Your task to perform on an android device: empty trash in google photos Image 0: 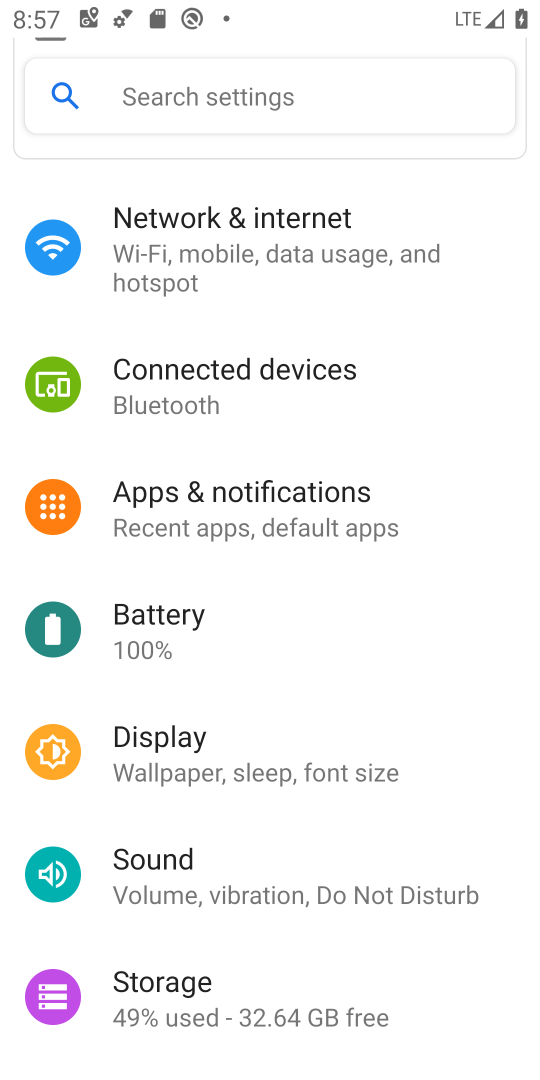
Step 0: press home button
Your task to perform on an android device: empty trash in google photos Image 1: 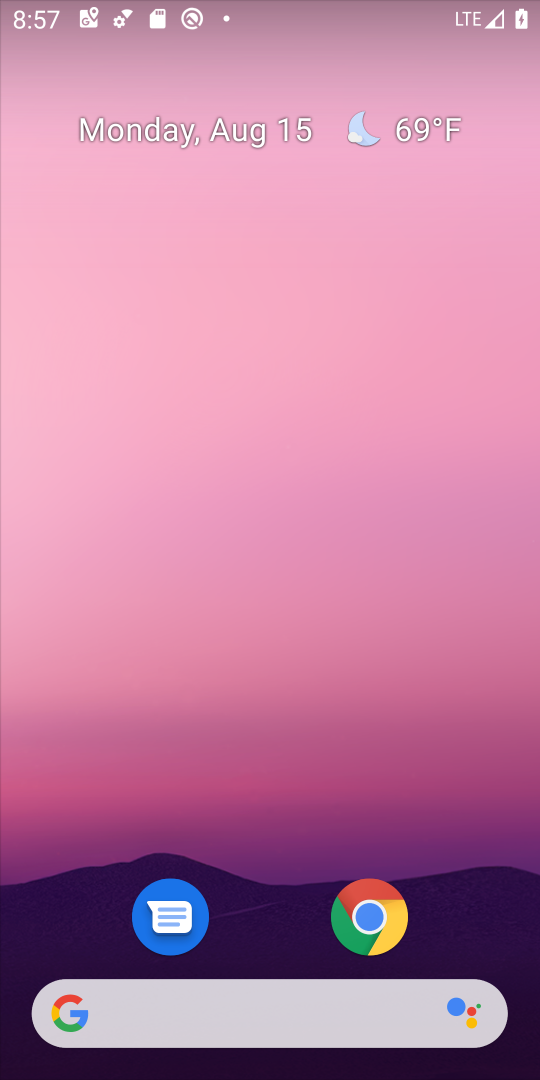
Step 1: drag from (265, 831) to (307, 17)
Your task to perform on an android device: empty trash in google photos Image 2: 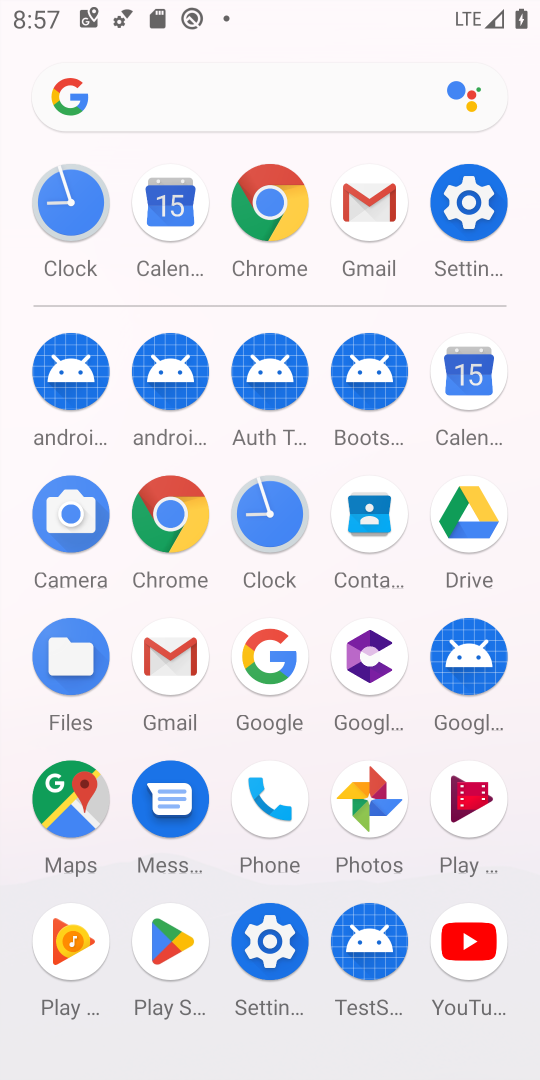
Step 2: click (366, 781)
Your task to perform on an android device: empty trash in google photos Image 3: 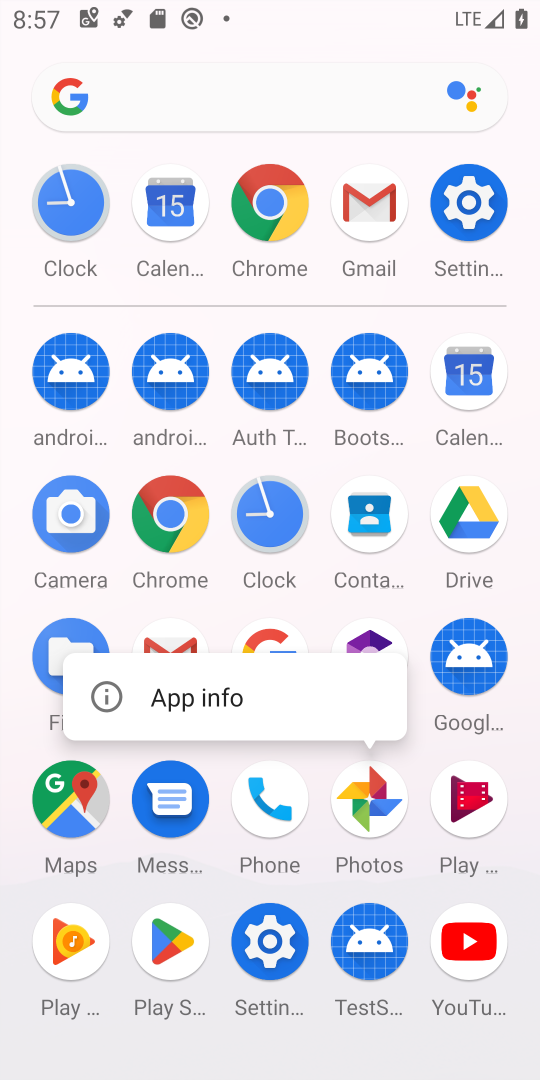
Step 3: click (377, 782)
Your task to perform on an android device: empty trash in google photos Image 4: 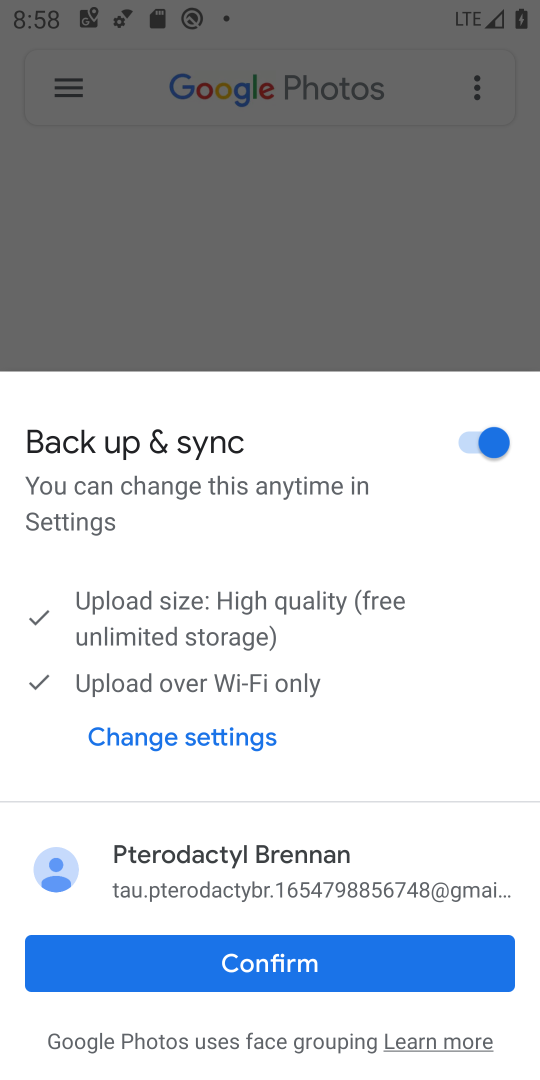
Step 4: click (396, 972)
Your task to perform on an android device: empty trash in google photos Image 5: 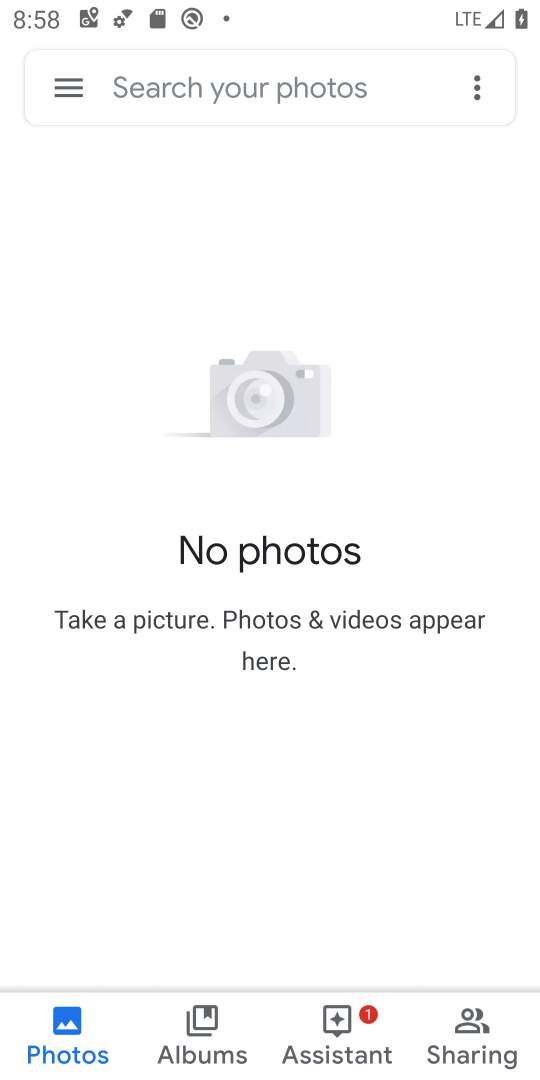
Step 5: click (67, 79)
Your task to perform on an android device: empty trash in google photos Image 6: 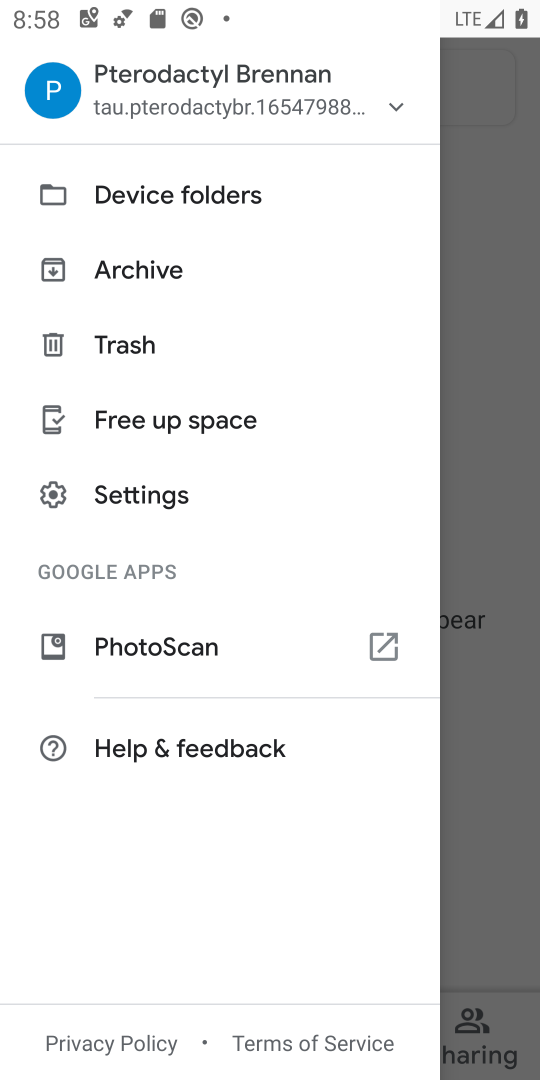
Step 6: click (102, 342)
Your task to perform on an android device: empty trash in google photos Image 7: 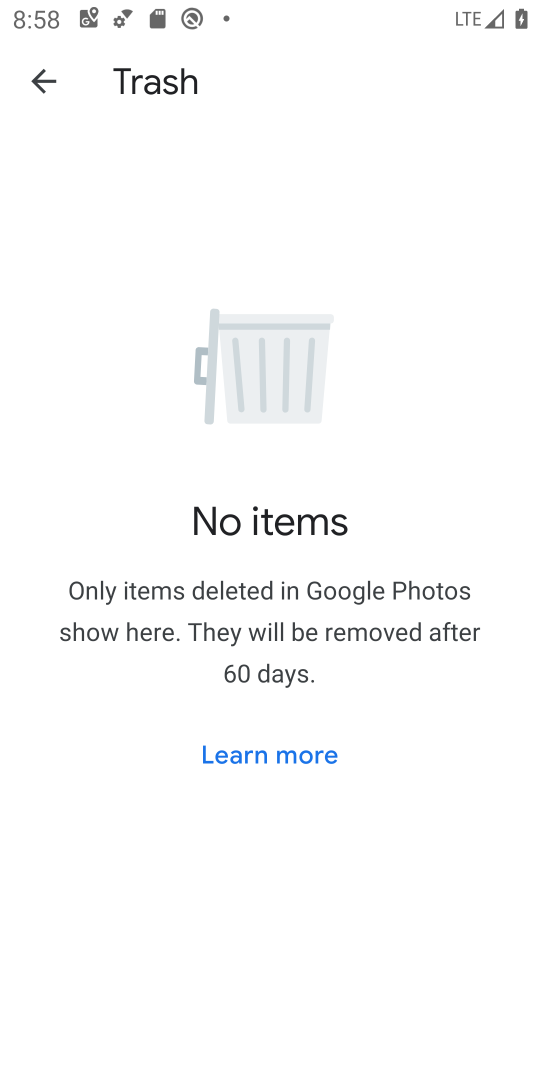
Step 7: task complete